Your task to perform on an android device: Go to eBay Image 0: 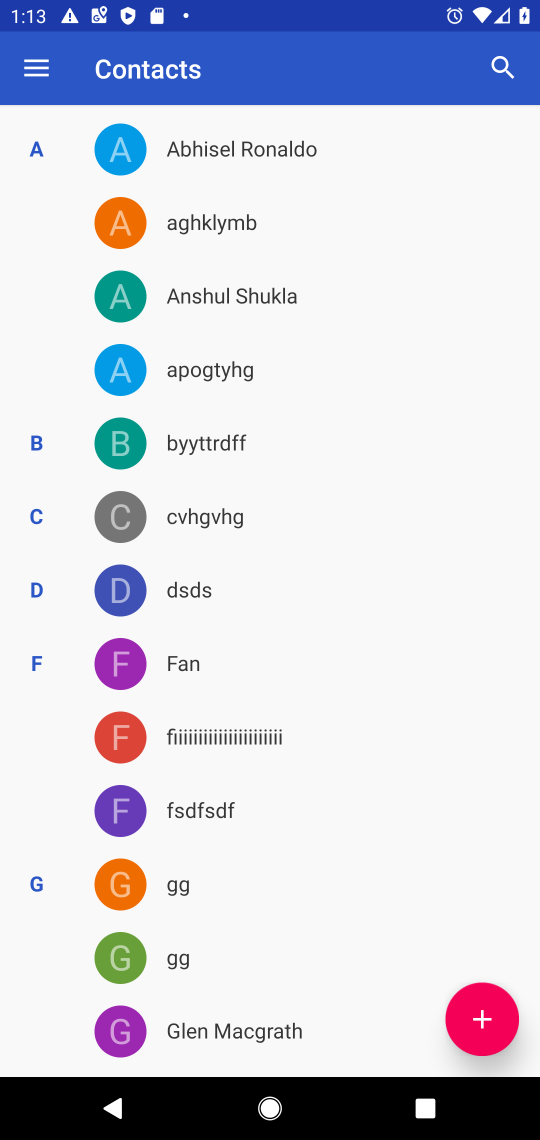
Step 0: press home button
Your task to perform on an android device: Go to eBay Image 1: 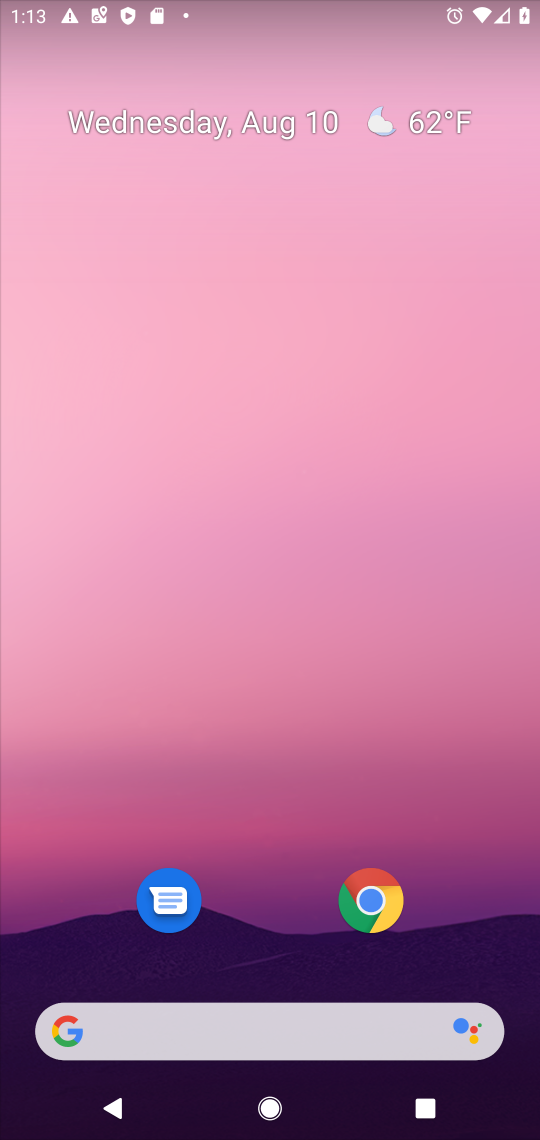
Step 1: click (267, 1031)
Your task to perform on an android device: Go to eBay Image 2: 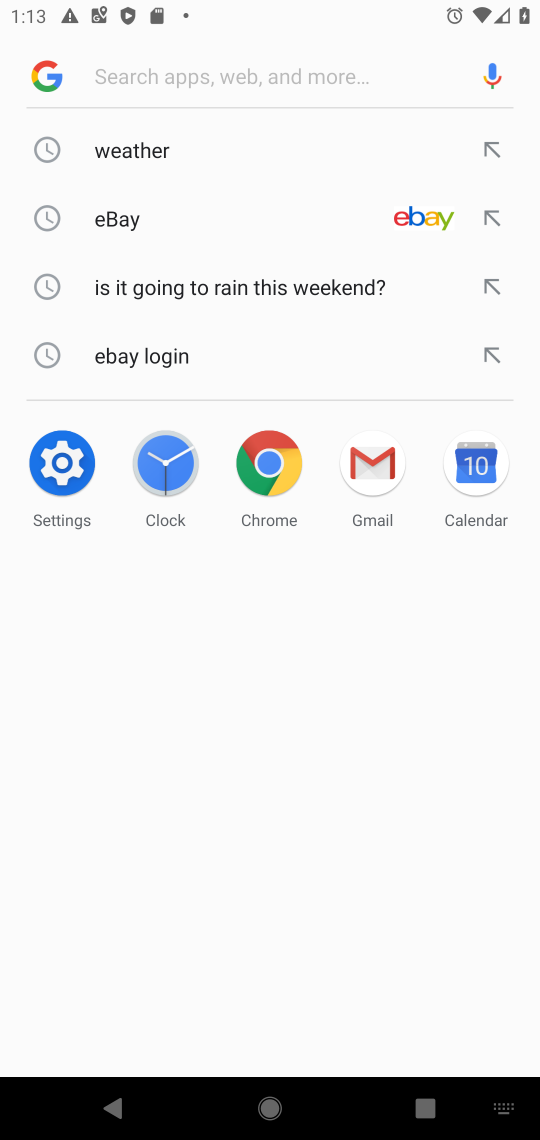
Step 2: click (333, 218)
Your task to perform on an android device: Go to eBay Image 3: 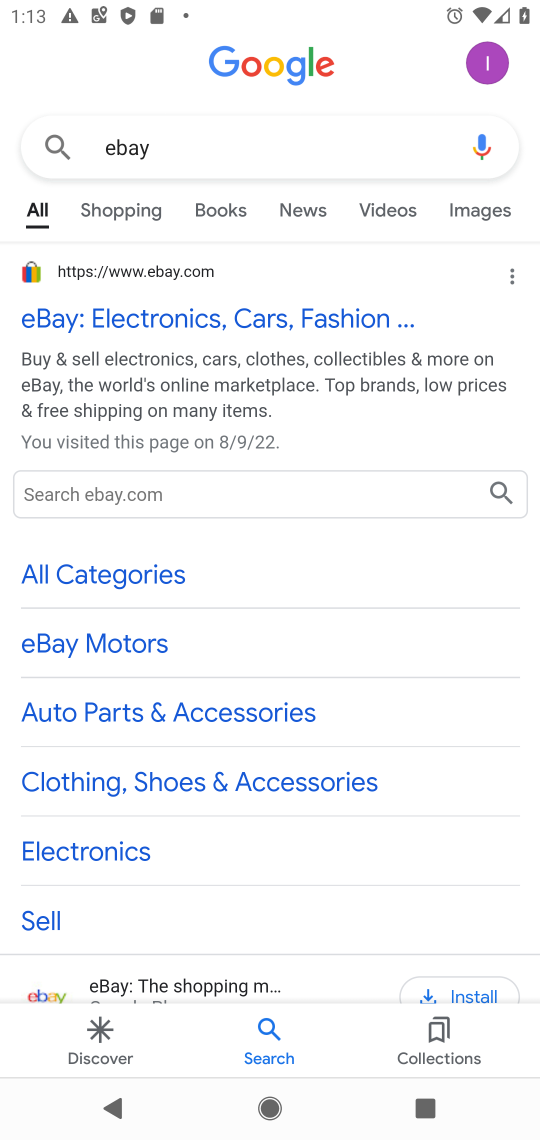
Step 3: click (204, 323)
Your task to perform on an android device: Go to eBay Image 4: 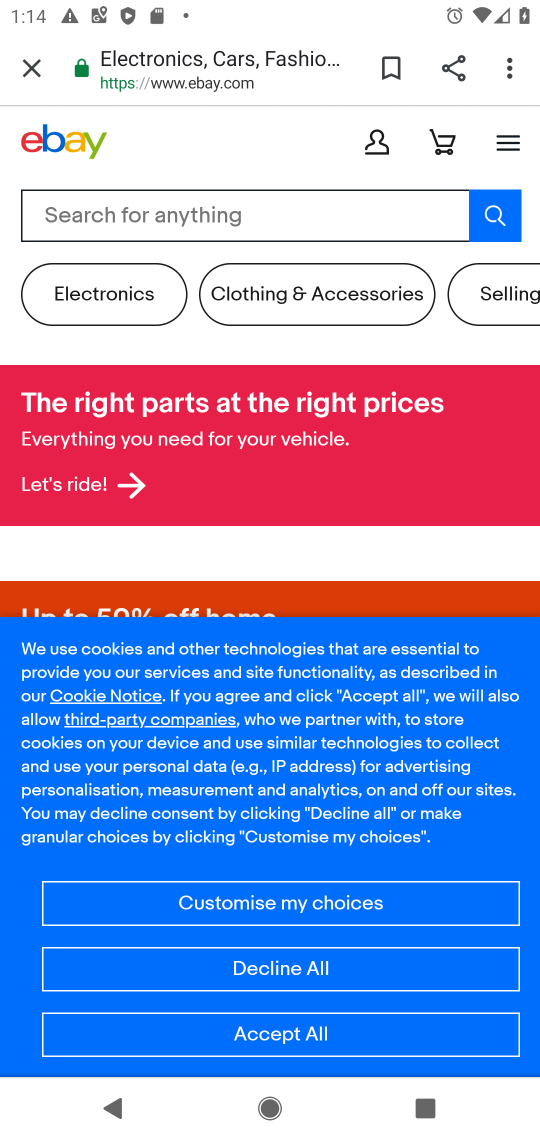
Step 4: click (388, 1038)
Your task to perform on an android device: Go to eBay Image 5: 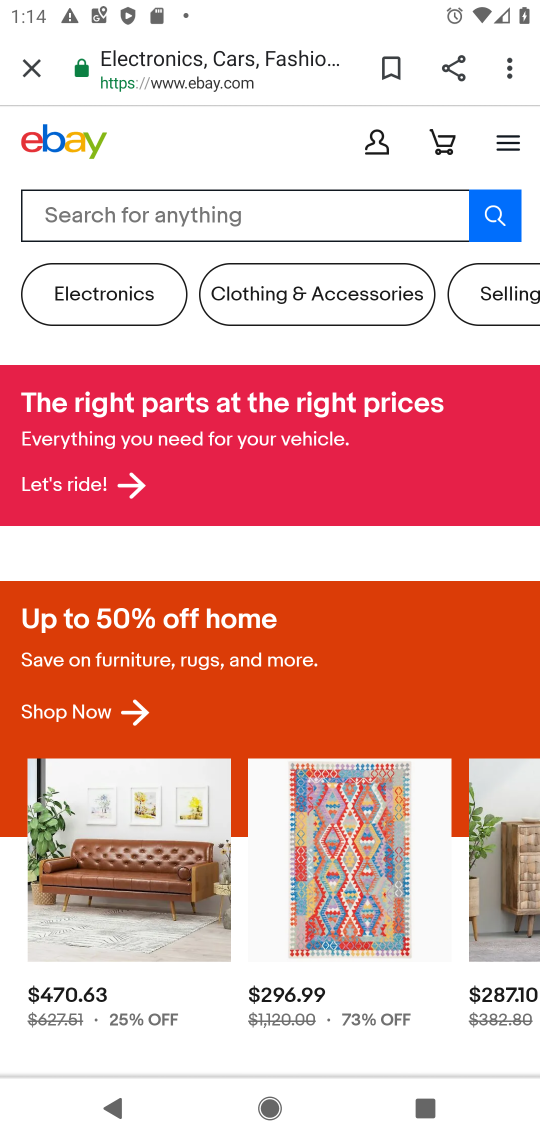
Step 5: task complete